Your task to perform on an android device: toggle airplane mode Image 0: 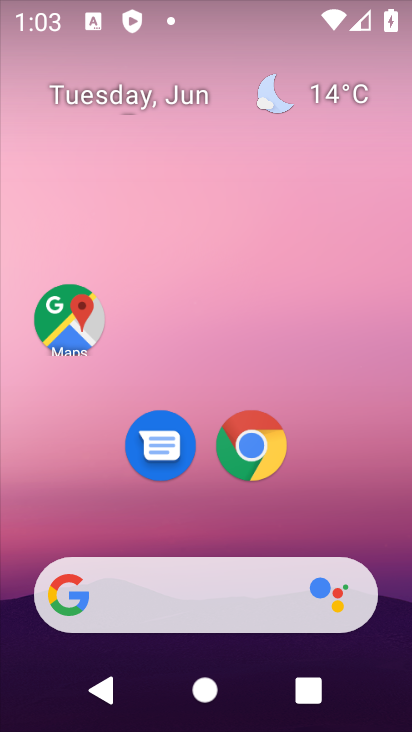
Step 0: drag from (221, 22) to (28, 498)
Your task to perform on an android device: toggle airplane mode Image 1: 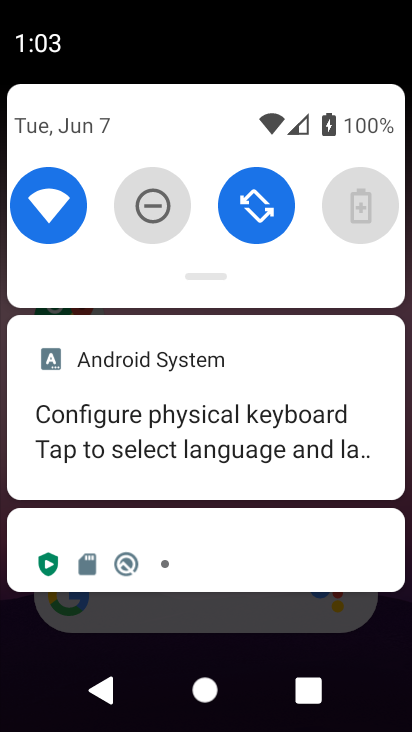
Step 1: drag from (227, 158) to (186, 598)
Your task to perform on an android device: toggle airplane mode Image 2: 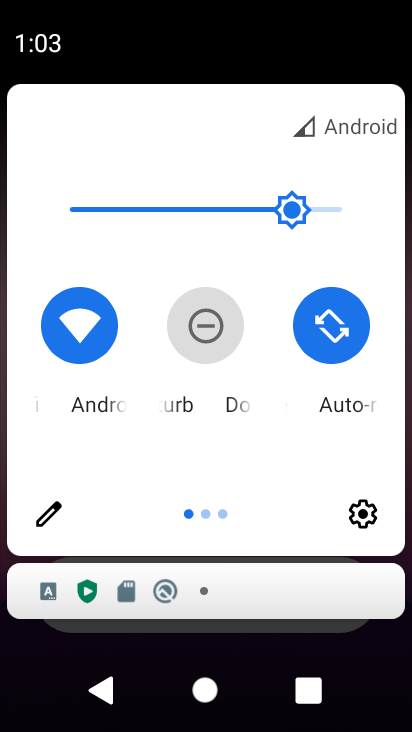
Step 2: drag from (351, 421) to (49, 438)
Your task to perform on an android device: toggle airplane mode Image 3: 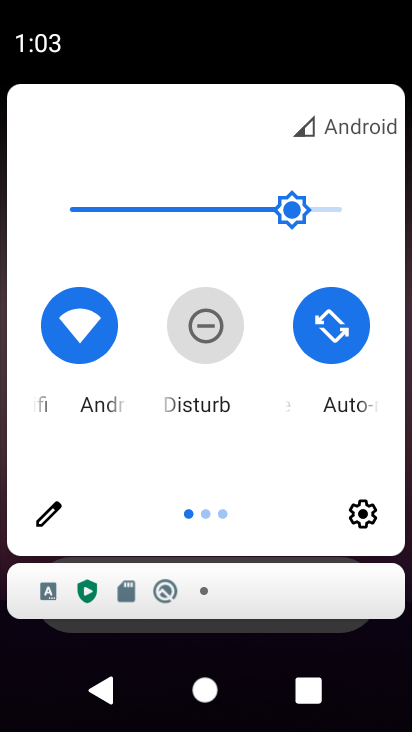
Step 3: drag from (355, 446) to (46, 456)
Your task to perform on an android device: toggle airplane mode Image 4: 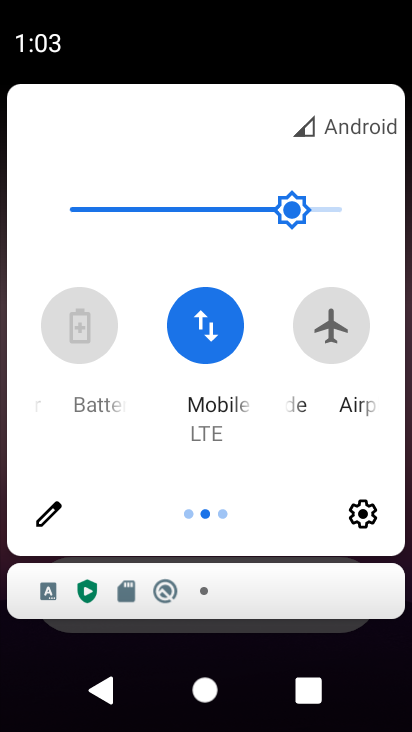
Step 4: click (353, 321)
Your task to perform on an android device: toggle airplane mode Image 5: 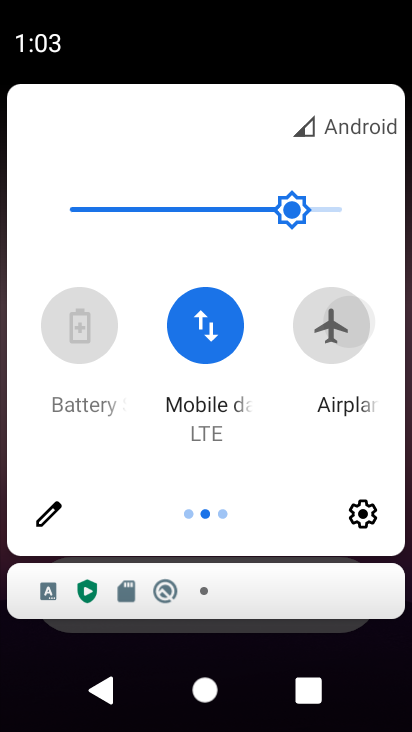
Step 5: click (353, 321)
Your task to perform on an android device: toggle airplane mode Image 6: 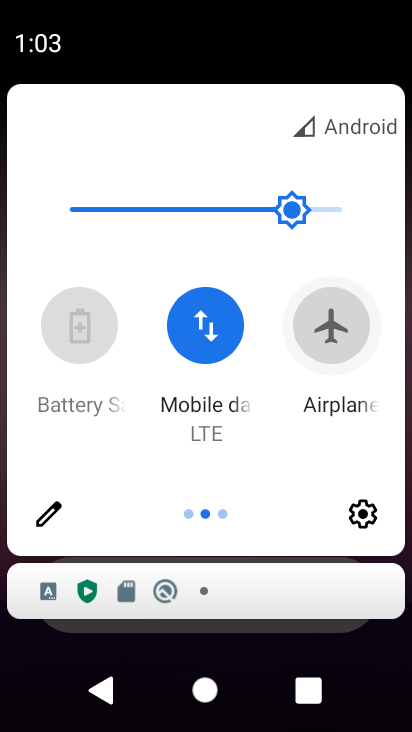
Step 6: click (353, 321)
Your task to perform on an android device: toggle airplane mode Image 7: 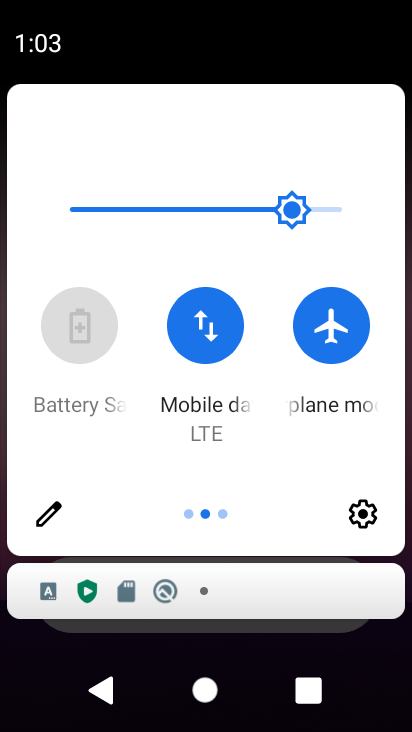
Step 7: click (353, 321)
Your task to perform on an android device: toggle airplane mode Image 8: 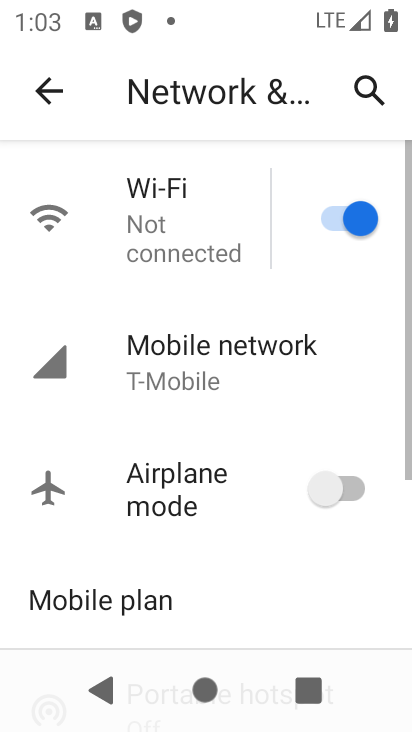
Step 8: task complete